Your task to perform on an android device: turn on translation in the chrome app Image 0: 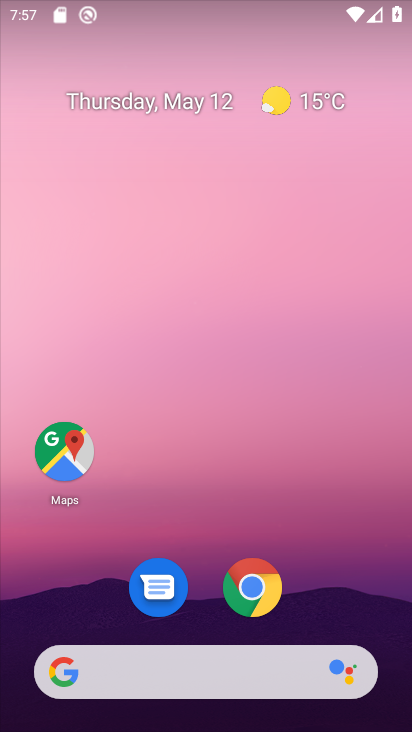
Step 0: drag from (380, 614) to (297, 102)
Your task to perform on an android device: turn on translation in the chrome app Image 1: 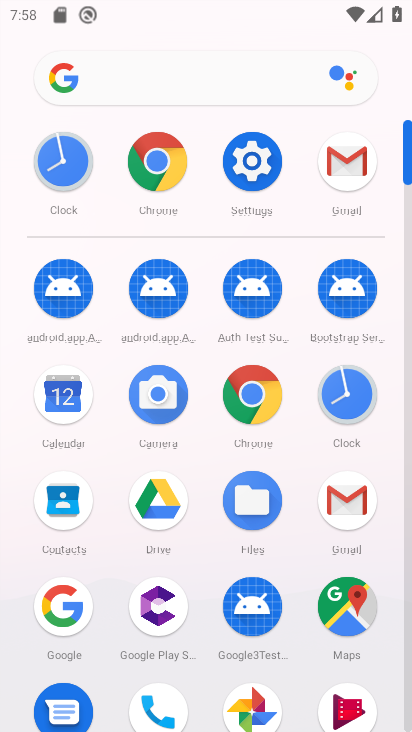
Step 1: click (245, 421)
Your task to perform on an android device: turn on translation in the chrome app Image 2: 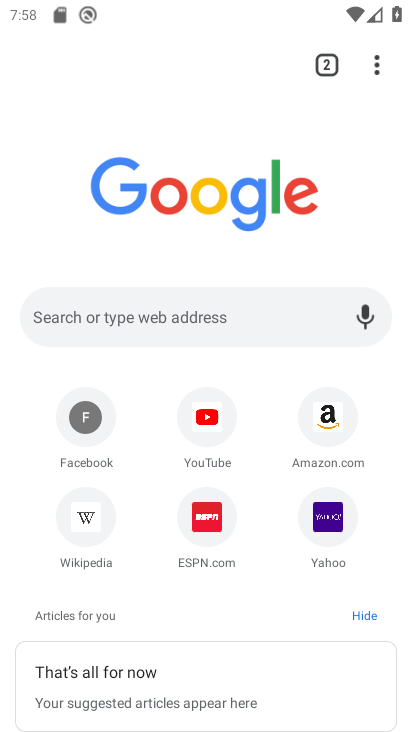
Step 2: click (380, 68)
Your task to perform on an android device: turn on translation in the chrome app Image 3: 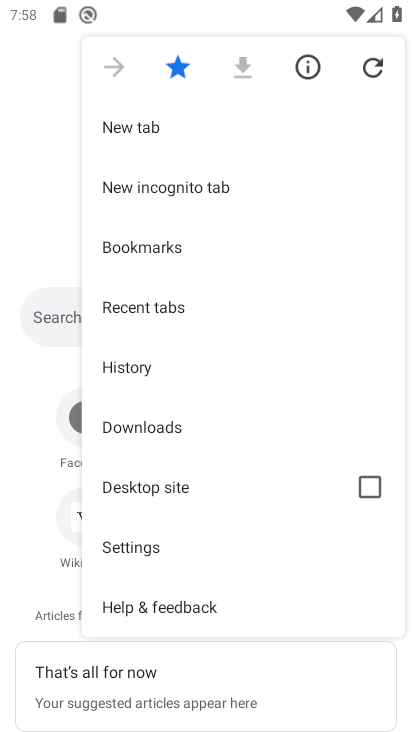
Step 3: click (166, 539)
Your task to perform on an android device: turn on translation in the chrome app Image 4: 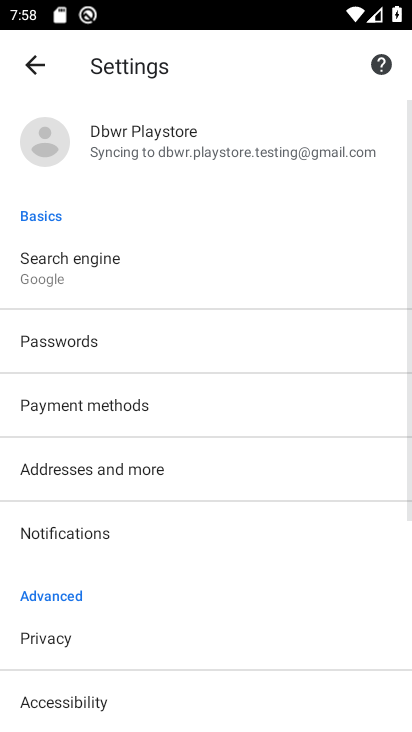
Step 4: drag from (105, 682) to (115, 294)
Your task to perform on an android device: turn on translation in the chrome app Image 5: 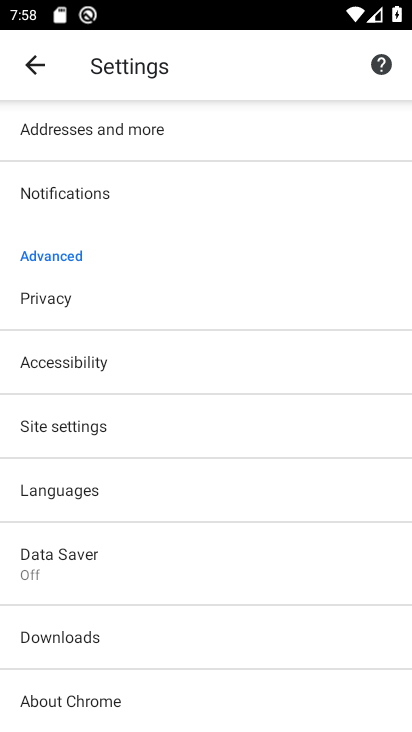
Step 5: click (132, 481)
Your task to perform on an android device: turn on translation in the chrome app Image 6: 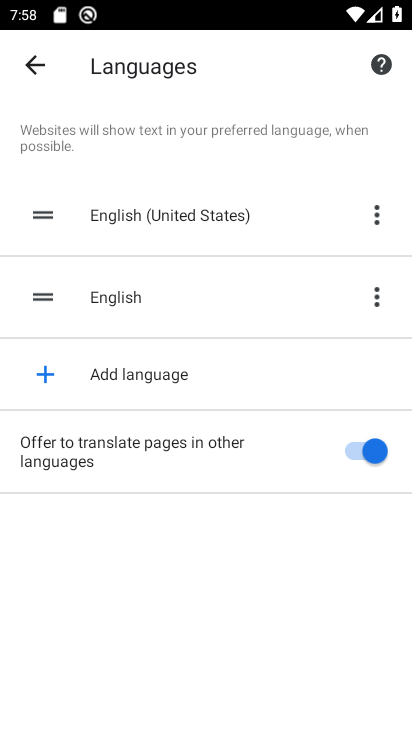
Step 6: task complete